Your task to perform on an android device: Go to eBay Image 0: 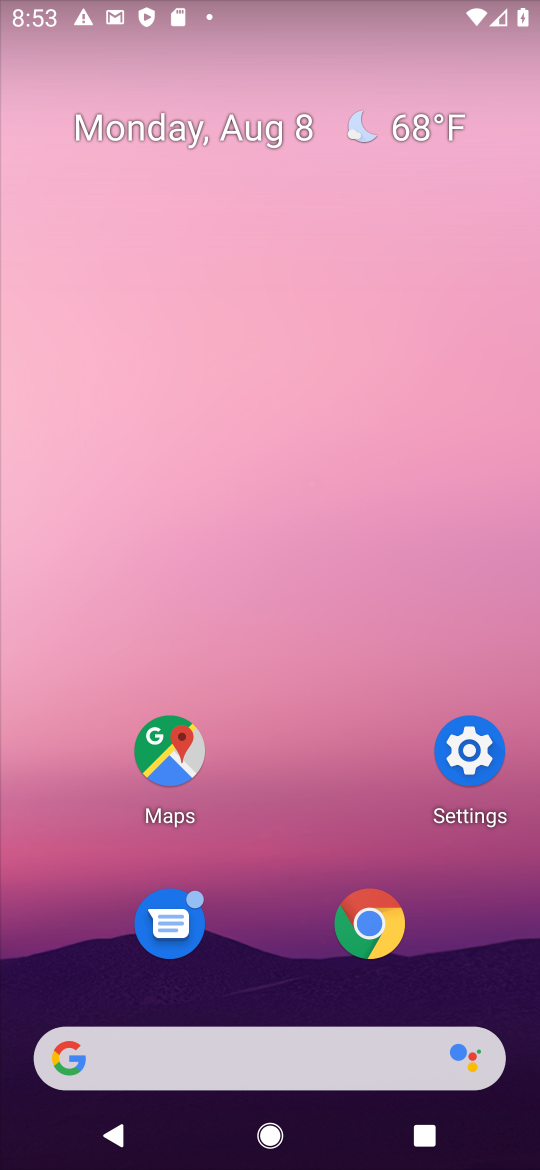
Step 0: press home button
Your task to perform on an android device: Go to eBay Image 1: 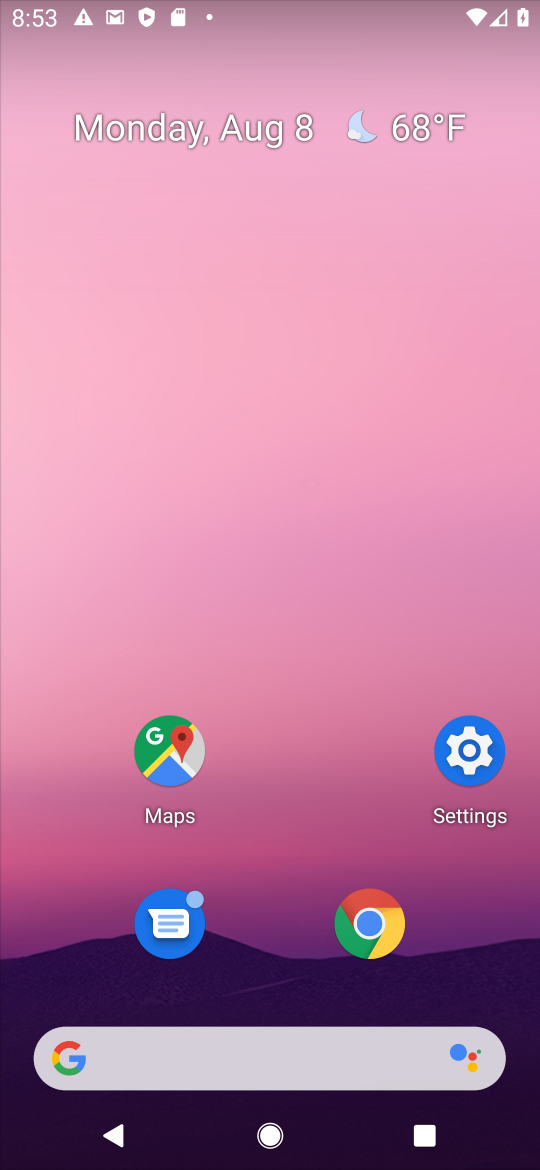
Step 1: click (379, 920)
Your task to perform on an android device: Go to eBay Image 2: 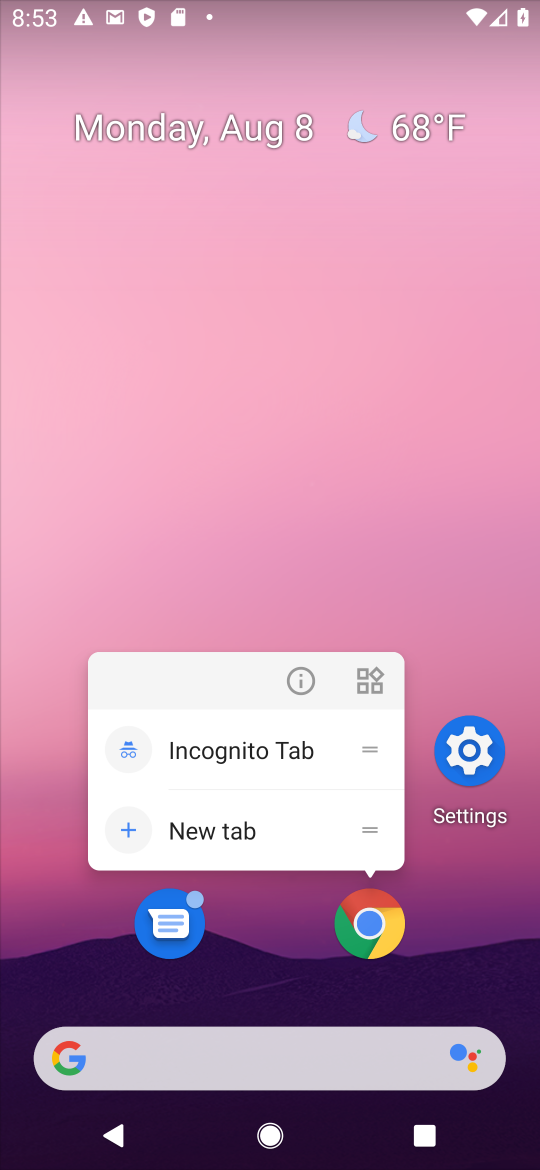
Step 2: click (362, 923)
Your task to perform on an android device: Go to eBay Image 3: 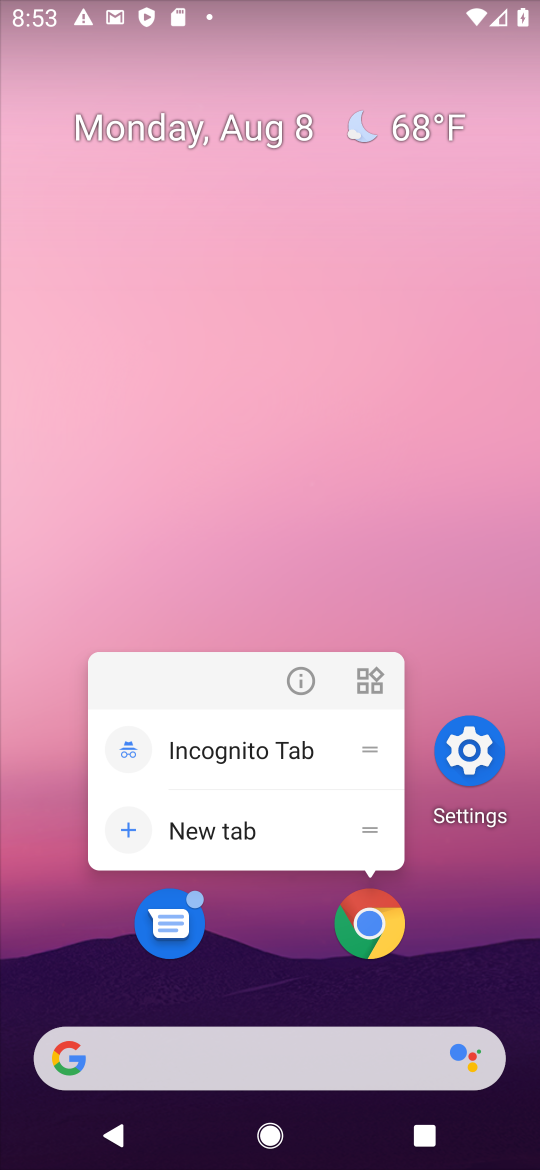
Step 3: click (361, 929)
Your task to perform on an android device: Go to eBay Image 4: 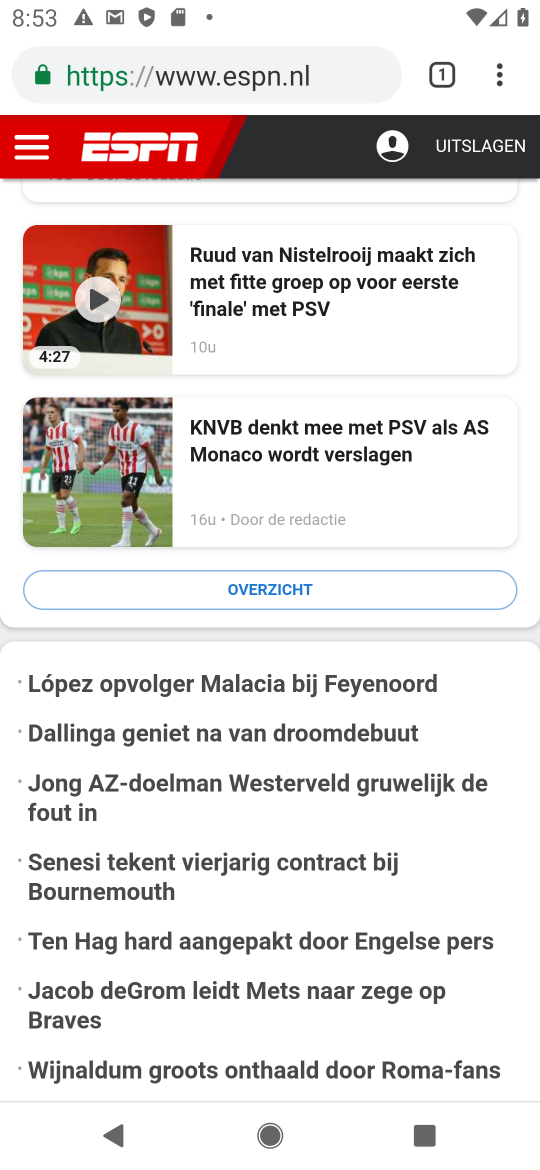
Step 4: drag from (500, 80) to (45, 477)
Your task to perform on an android device: Go to eBay Image 5: 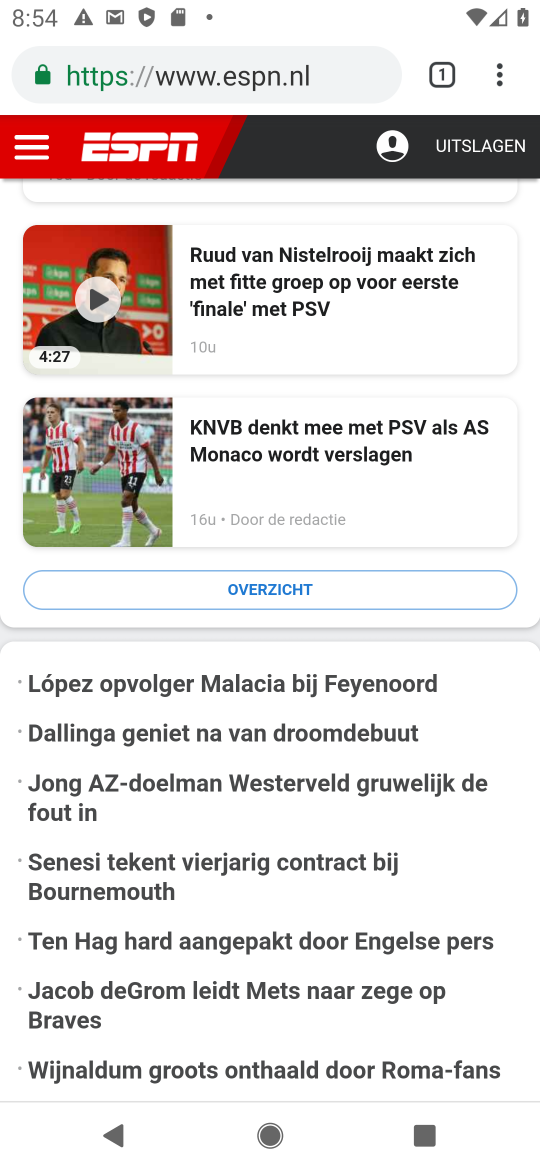
Step 5: drag from (504, 64) to (233, 253)
Your task to perform on an android device: Go to eBay Image 6: 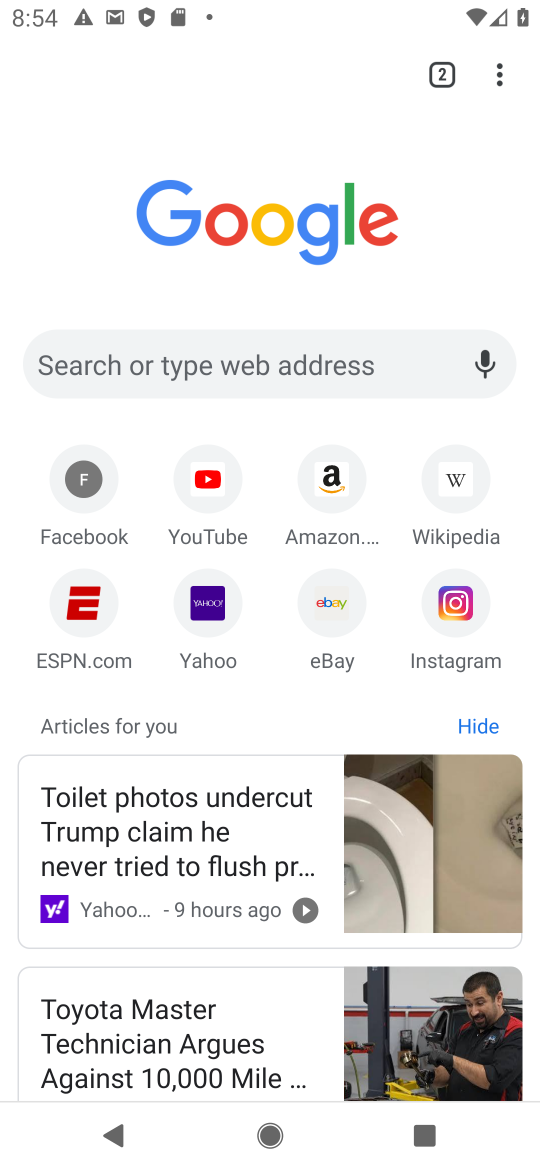
Step 6: click (324, 591)
Your task to perform on an android device: Go to eBay Image 7: 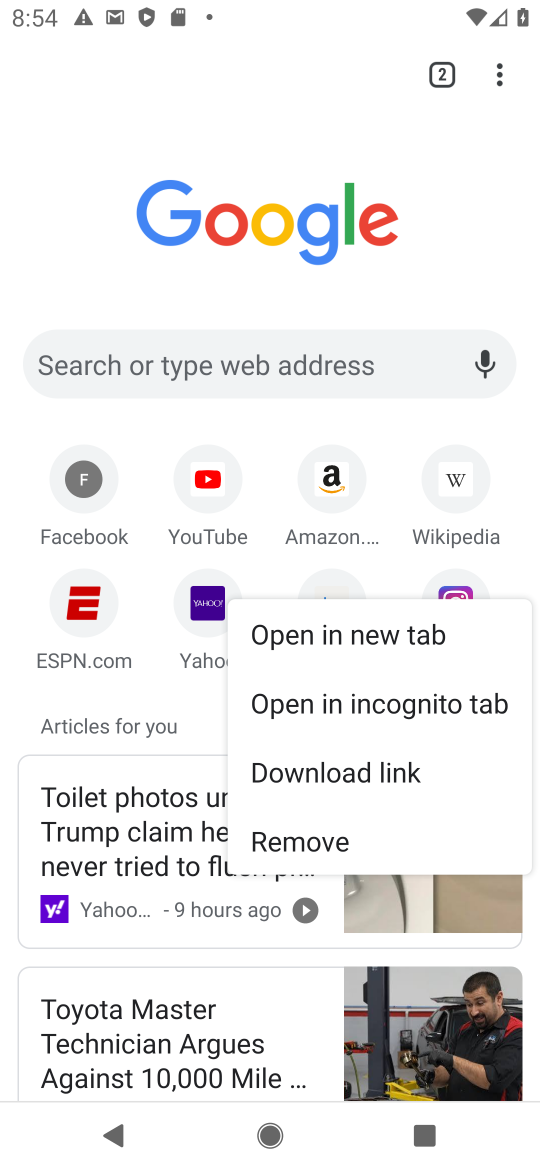
Step 7: click (330, 588)
Your task to perform on an android device: Go to eBay Image 8: 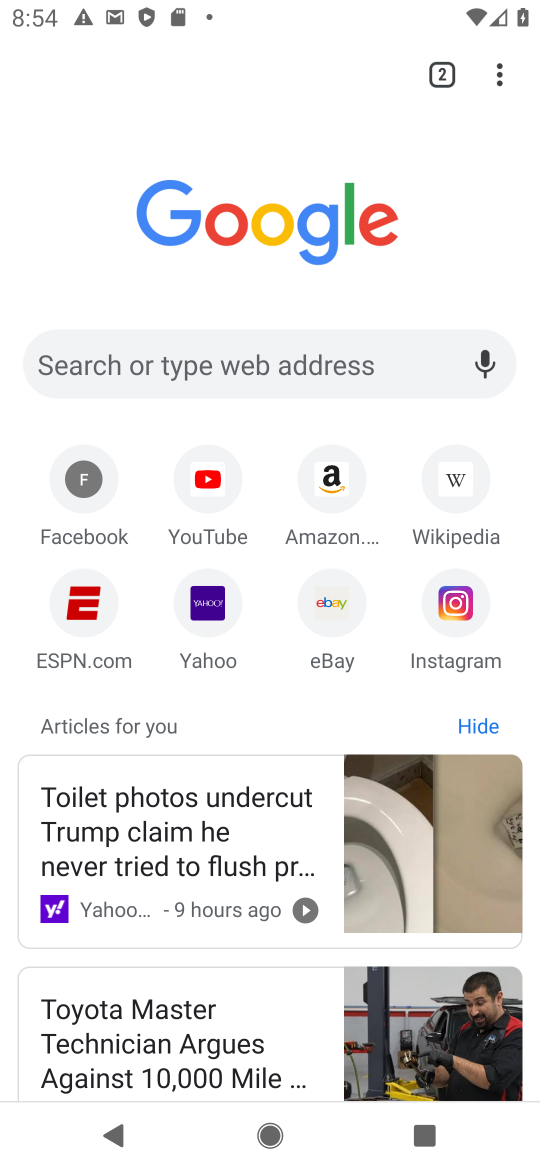
Step 8: click (342, 599)
Your task to perform on an android device: Go to eBay Image 9: 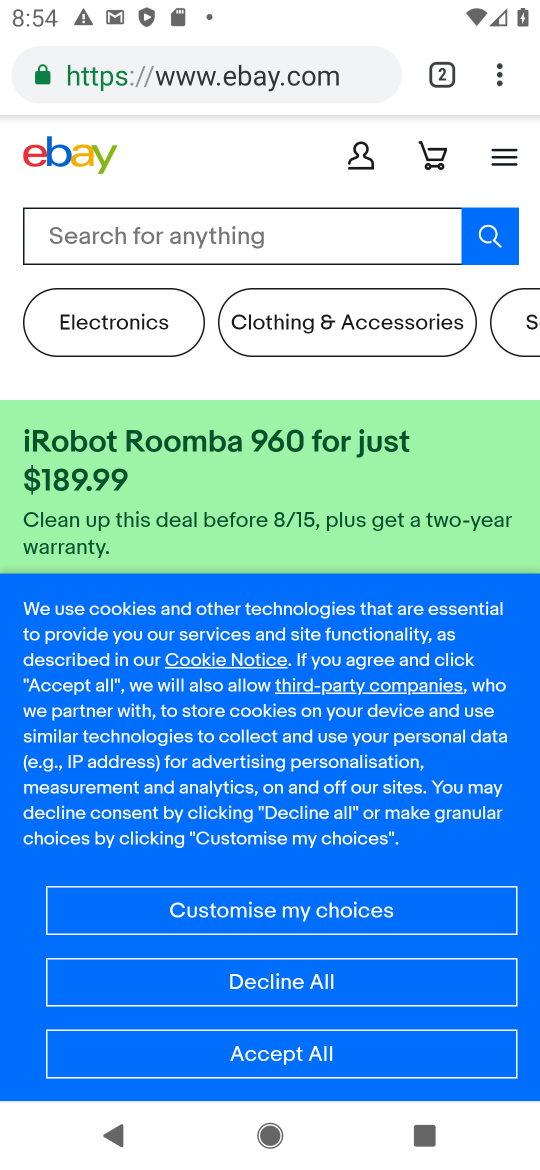
Step 9: click (331, 1062)
Your task to perform on an android device: Go to eBay Image 10: 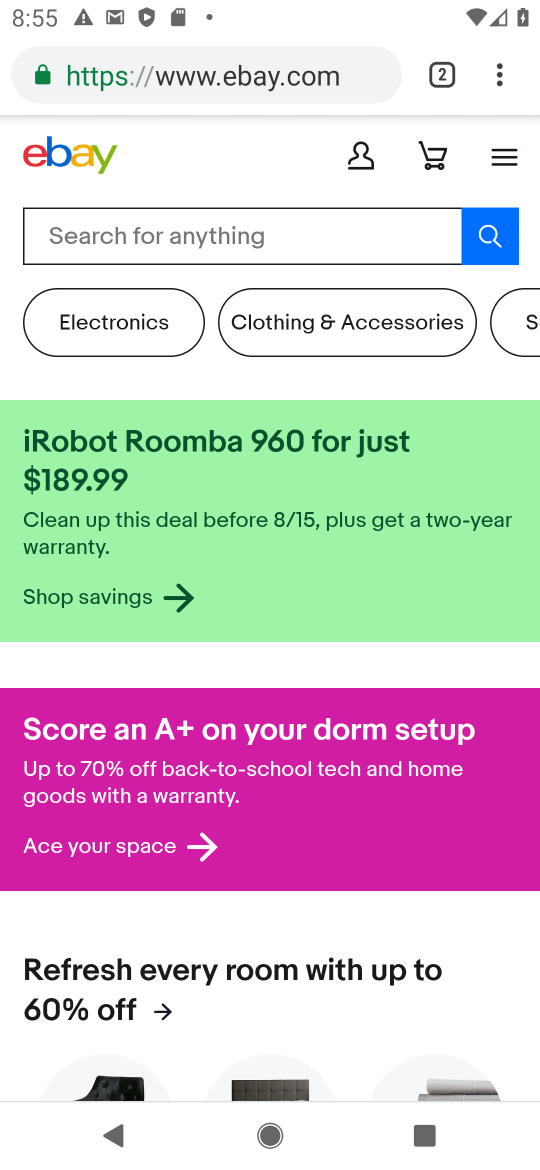
Step 10: task complete